Your task to perform on an android device: Open Yahoo.com Image 0: 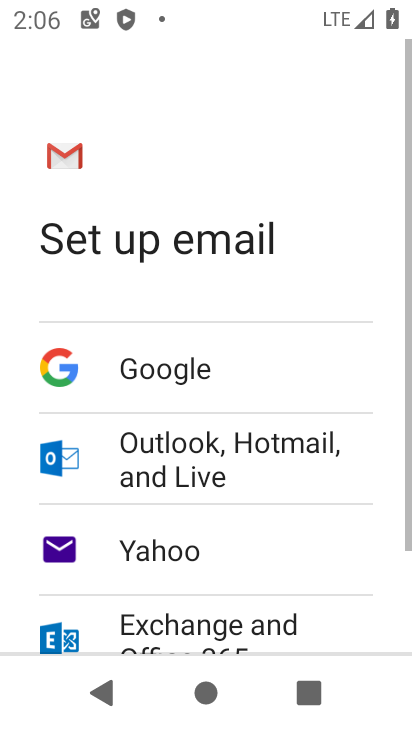
Step 0: press home button
Your task to perform on an android device: Open Yahoo.com Image 1: 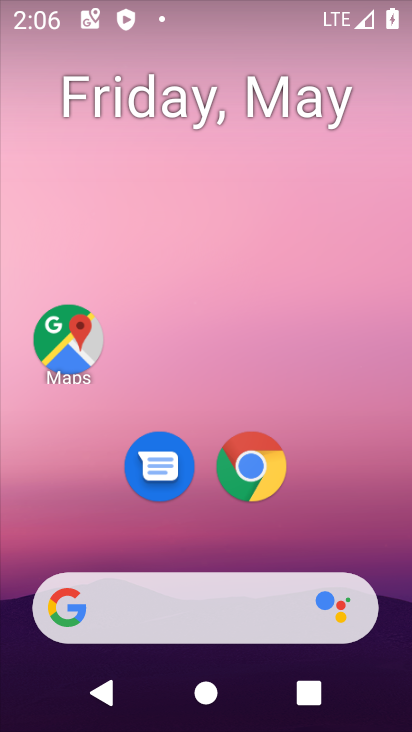
Step 1: drag from (283, 498) to (273, 161)
Your task to perform on an android device: Open Yahoo.com Image 2: 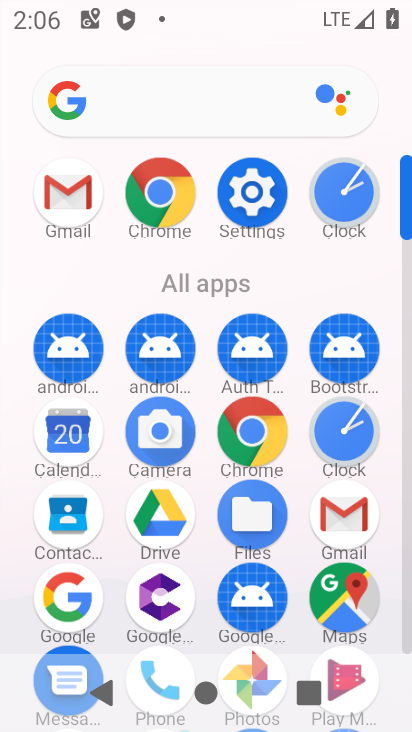
Step 2: click (247, 435)
Your task to perform on an android device: Open Yahoo.com Image 3: 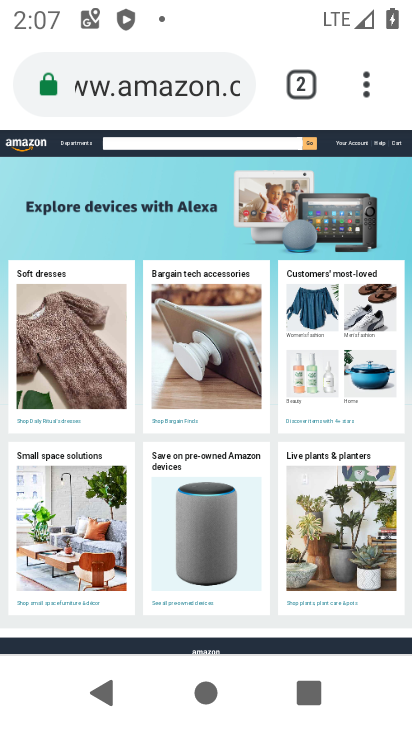
Step 3: click (149, 86)
Your task to perform on an android device: Open Yahoo.com Image 4: 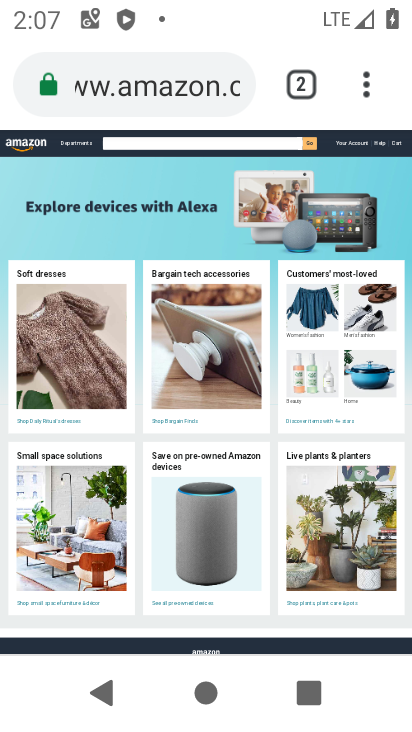
Step 4: click (149, 86)
Your task to perform on an android device: Open Yahoo.com Image 5: 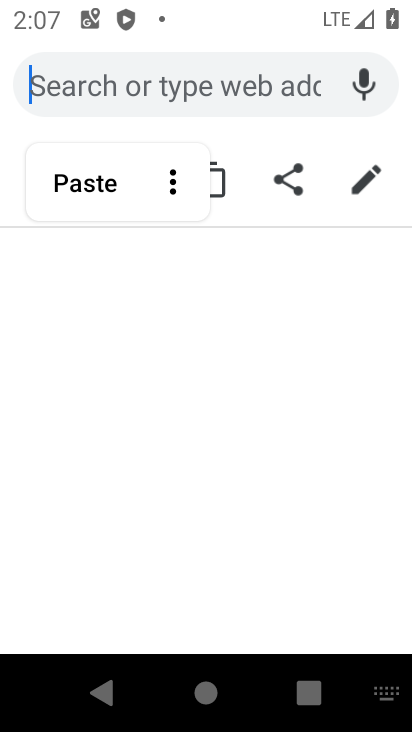
Step 5: type "Yahoo.com"
Your task to perform on an android device: Open Yahoo.com Image 6: 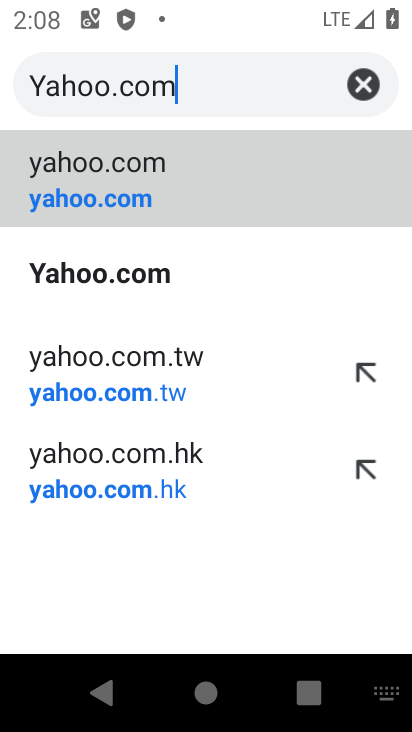
Step 6: click (125, 188)
Your task to perform on an android device: Open Yahoo.com Image 7: 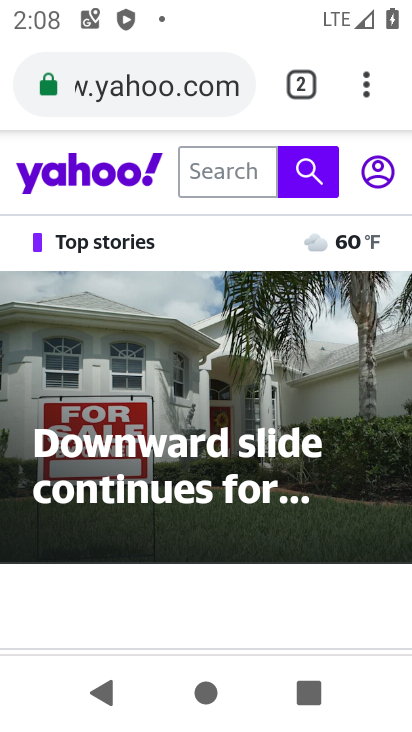
Step 7: task complete